Your task to perform on an android device: Open the stopwatch Image 0: 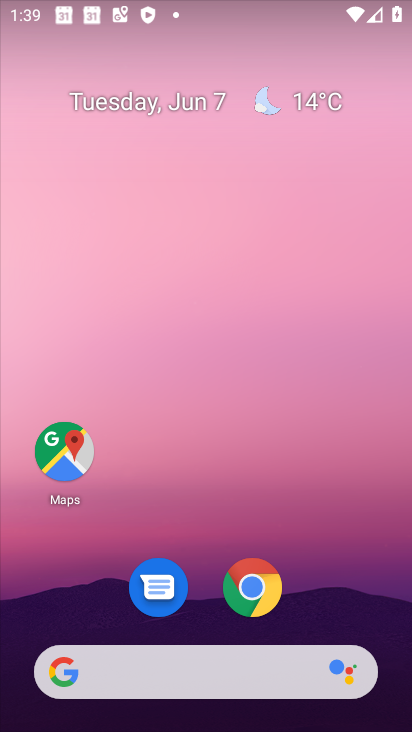
Step 0: drag from (314, 595) to (309, 46)
Your task to perform on an android device: Open the stopwatch Image 1: 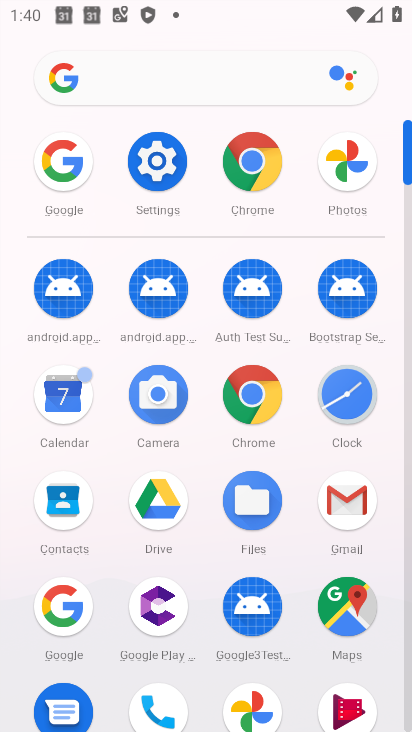
Step 1: click (350, 378)
Your task to perform on an android device: Open the stopwatch Image 2: 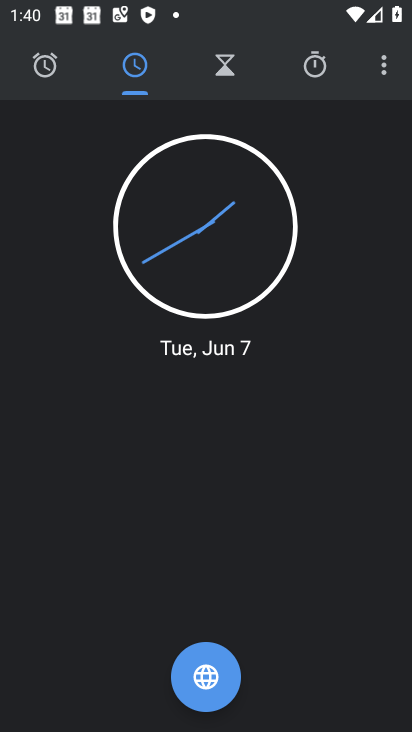
Step 2: click (324, 70)
Your task to perform on an android device: Open the stopwatch Image 3: 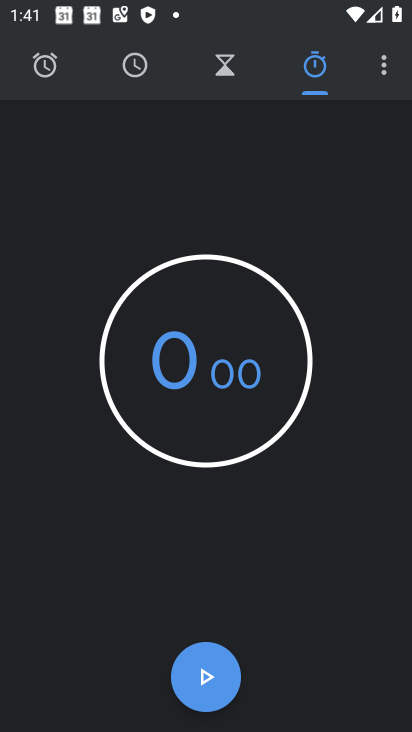
Step 3: task complete